Your task to perform on an android device: turn off airplane mode Image 0: 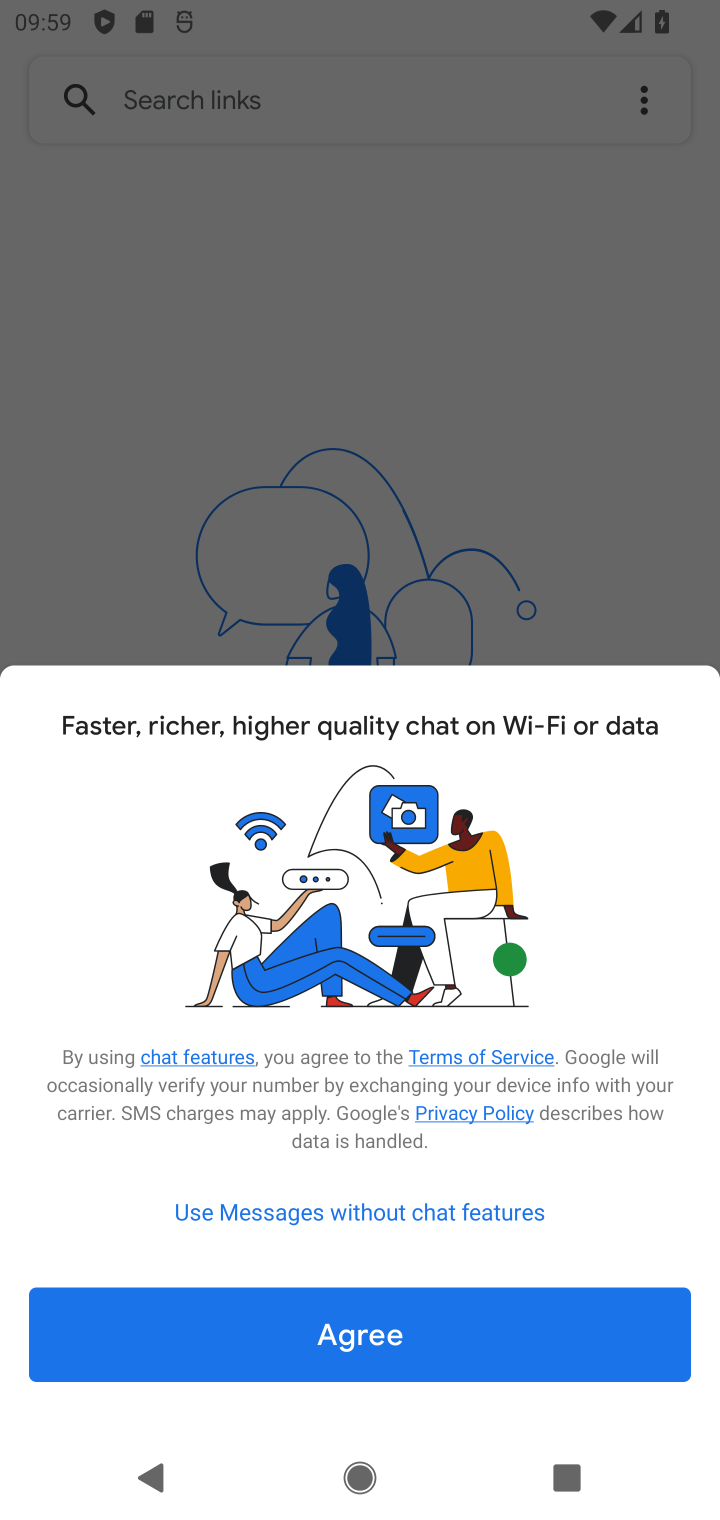
Step 0: press home button
Your task to perform on an android device: turn off airplane mode Image 1: 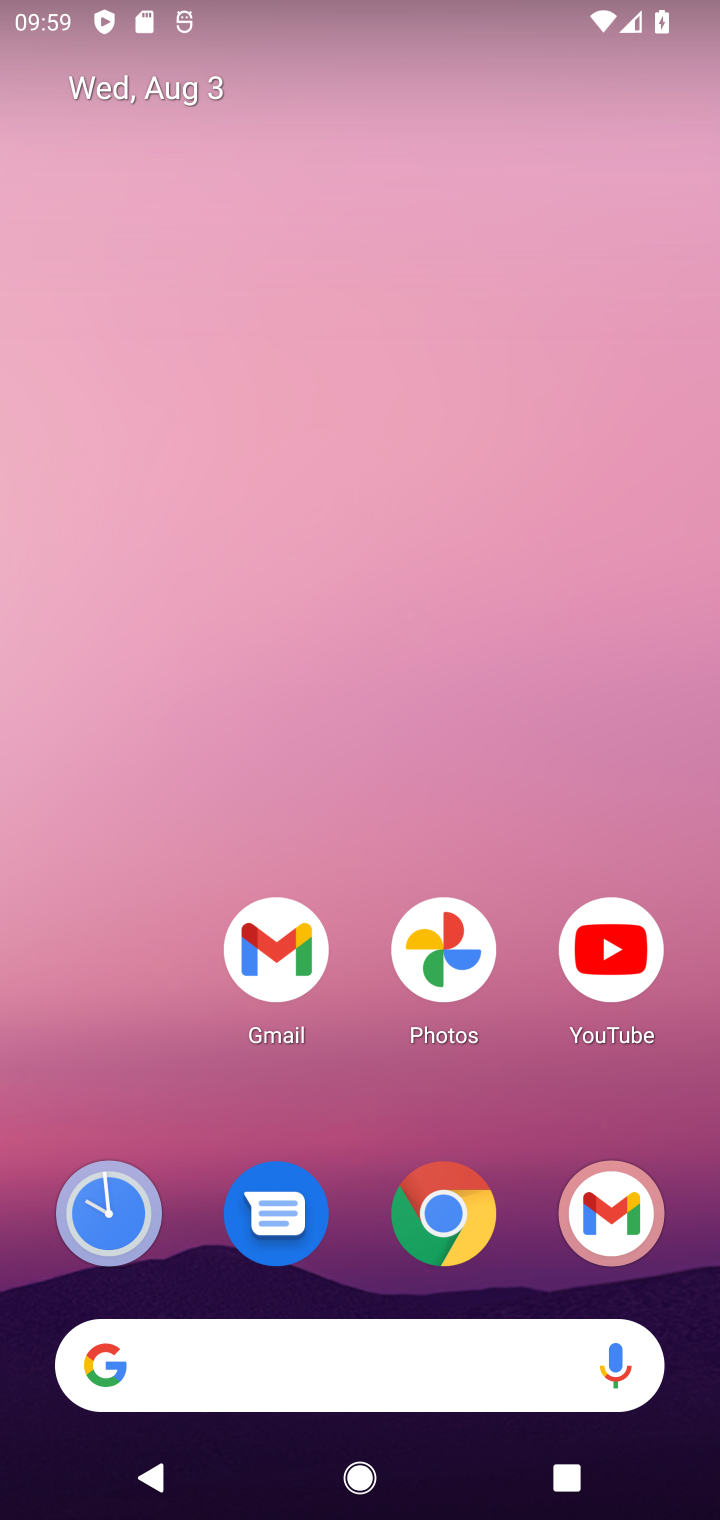
Step 1: task complete